Your task to perform on an android device: Go to settings Image 0: 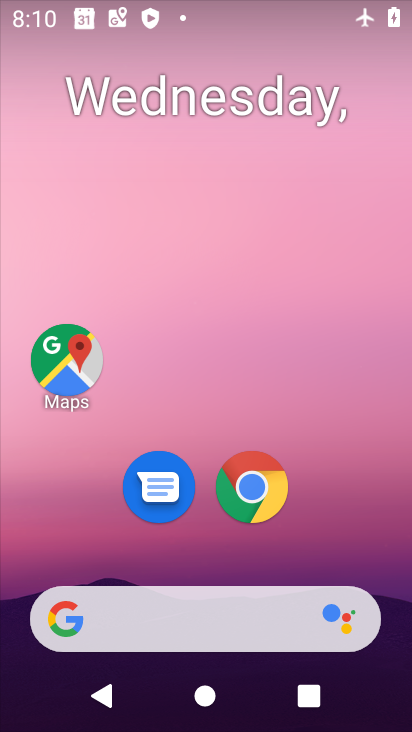
Step 0: drag from (393, 566) to (380, 320)
Your task to perform on an android device: Go to settings Image 1: 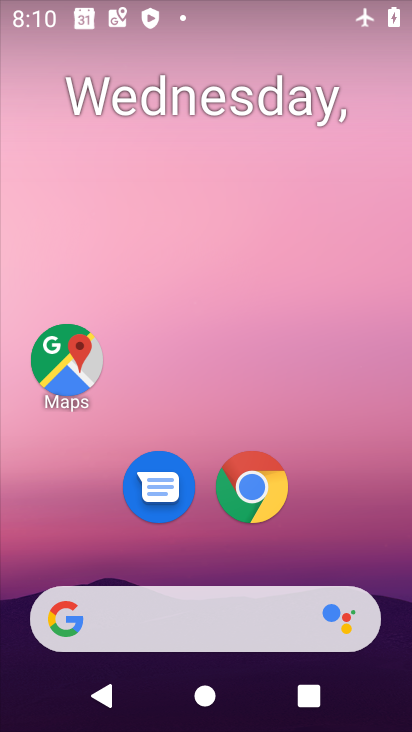
Step 1: drag from (376, 542) to (363, 190)
Your task to perform on an android device: Go to settings Image 2: 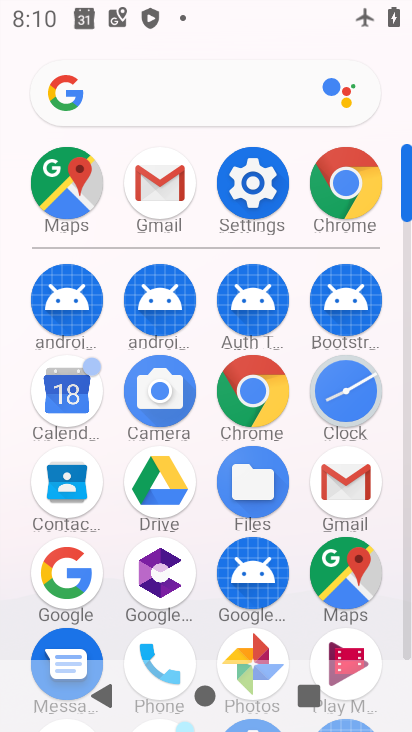
Step 2: click (270, 227)
Your task to perform on an android device: Go to settings Image 3: 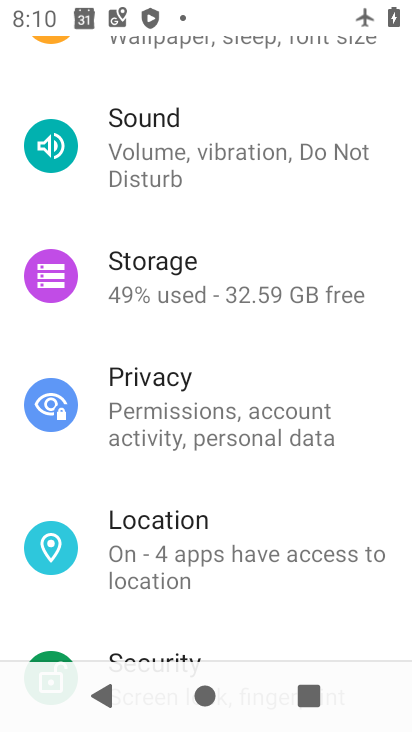
Step 3: task complete